Your task to perform on an android device: Find coffee shops on Maps Image 0: 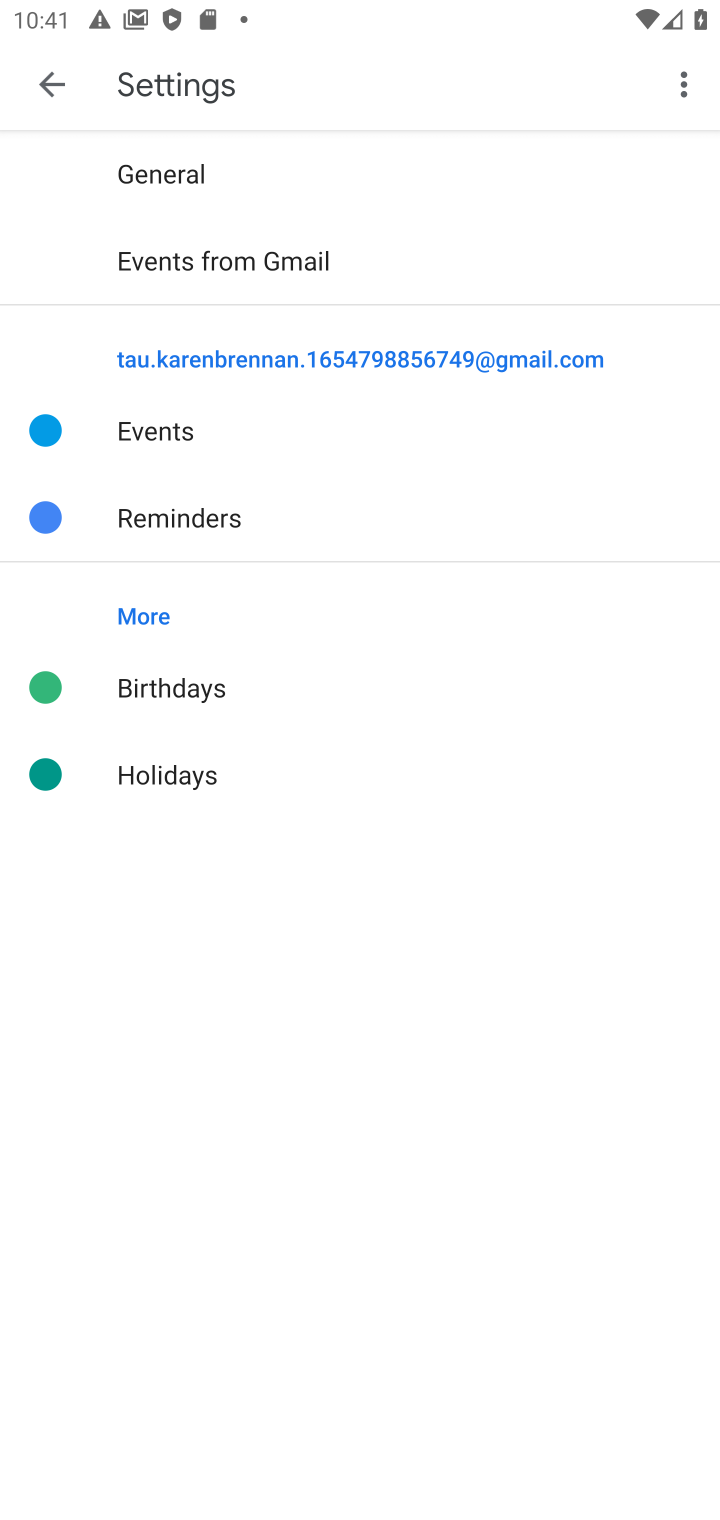
Step 0: press home button
Your task to perform on an android device: Find coffee shops on Maps Image 1: 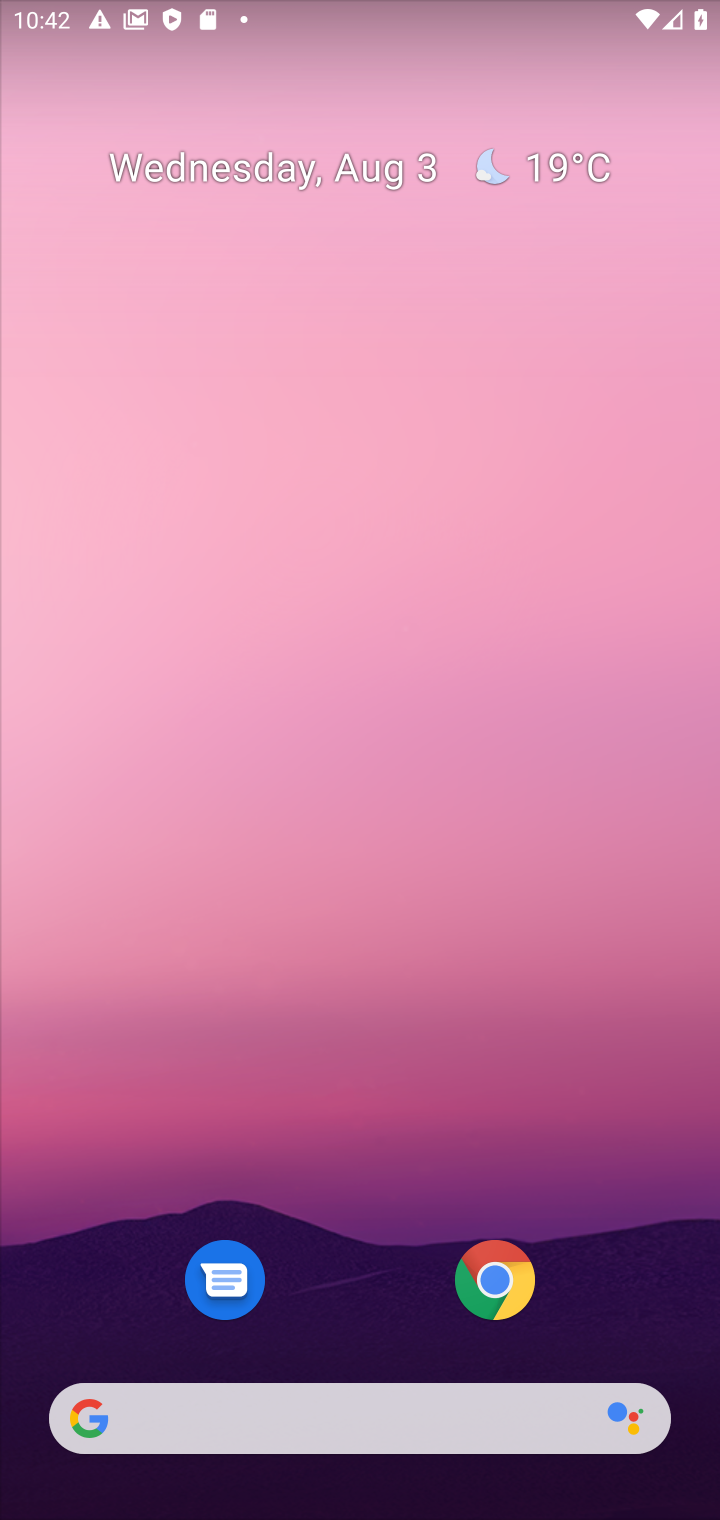
Step 1: drag from (341, 1150) to (313, 346)
Your task to perform on an android device: Find coffee shops on Maps Image 2: 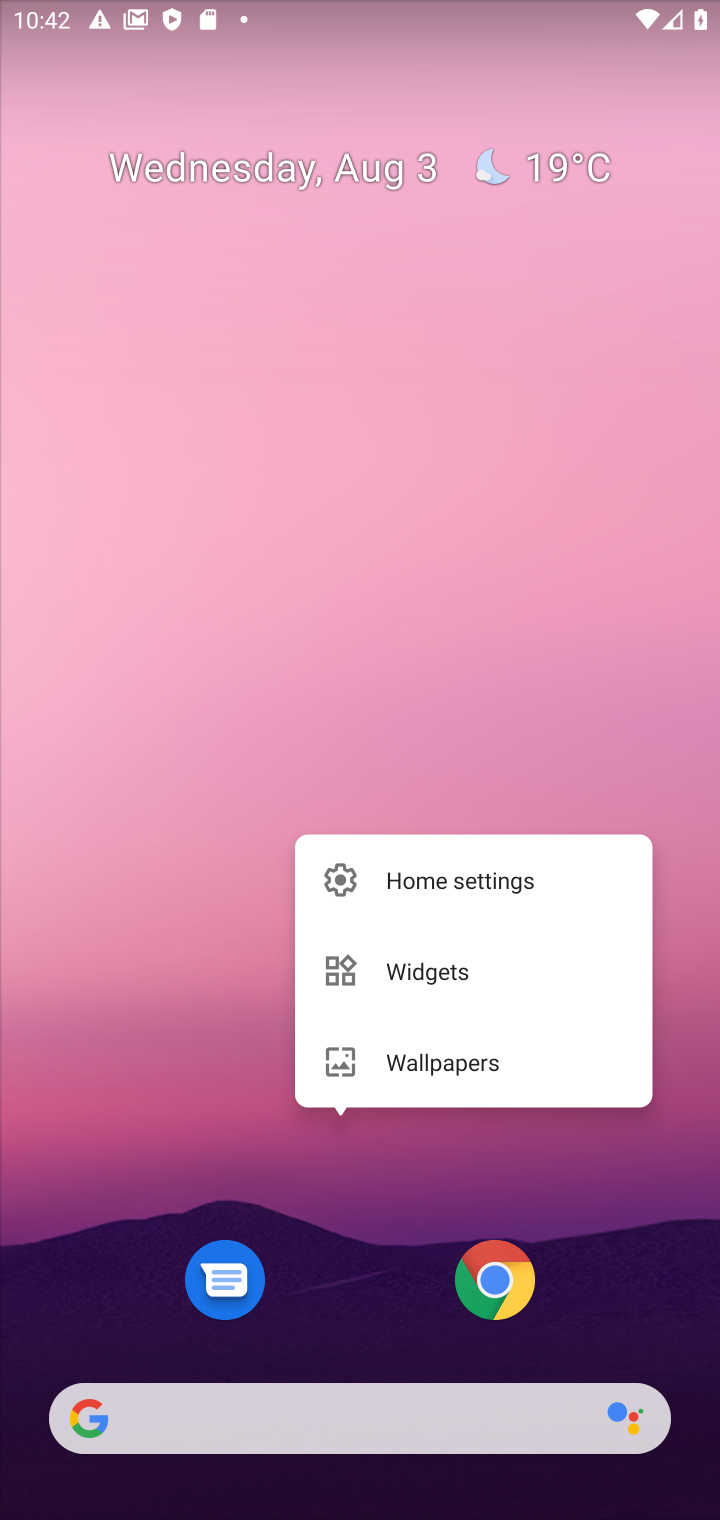
Step 2: click (328, 551)
Your task to perform on an android device: Find coffee shops on Maps Image 3: 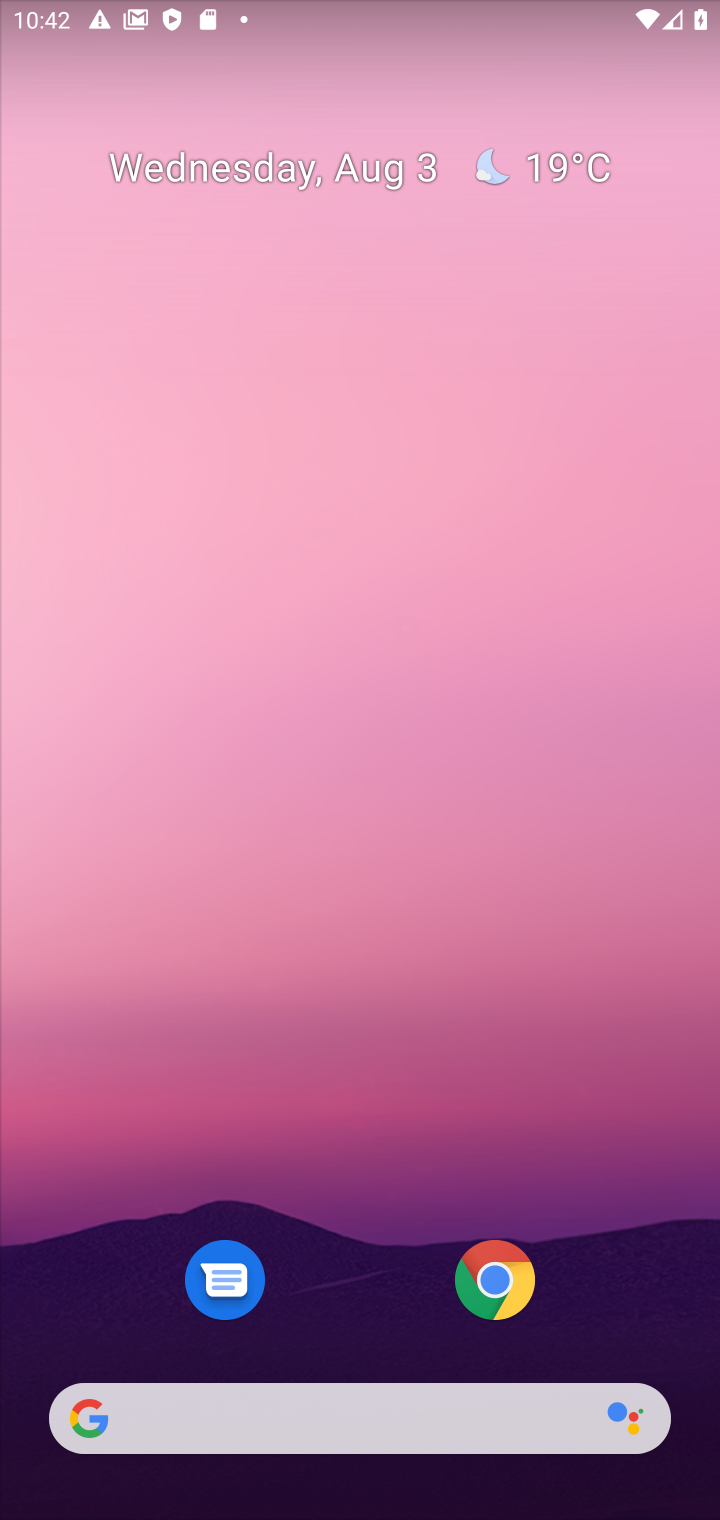
Step 3: drag from (358, 1084) to (366, 238)
Your task to perform on an android device: Find coffee shops on Maps Image 4: 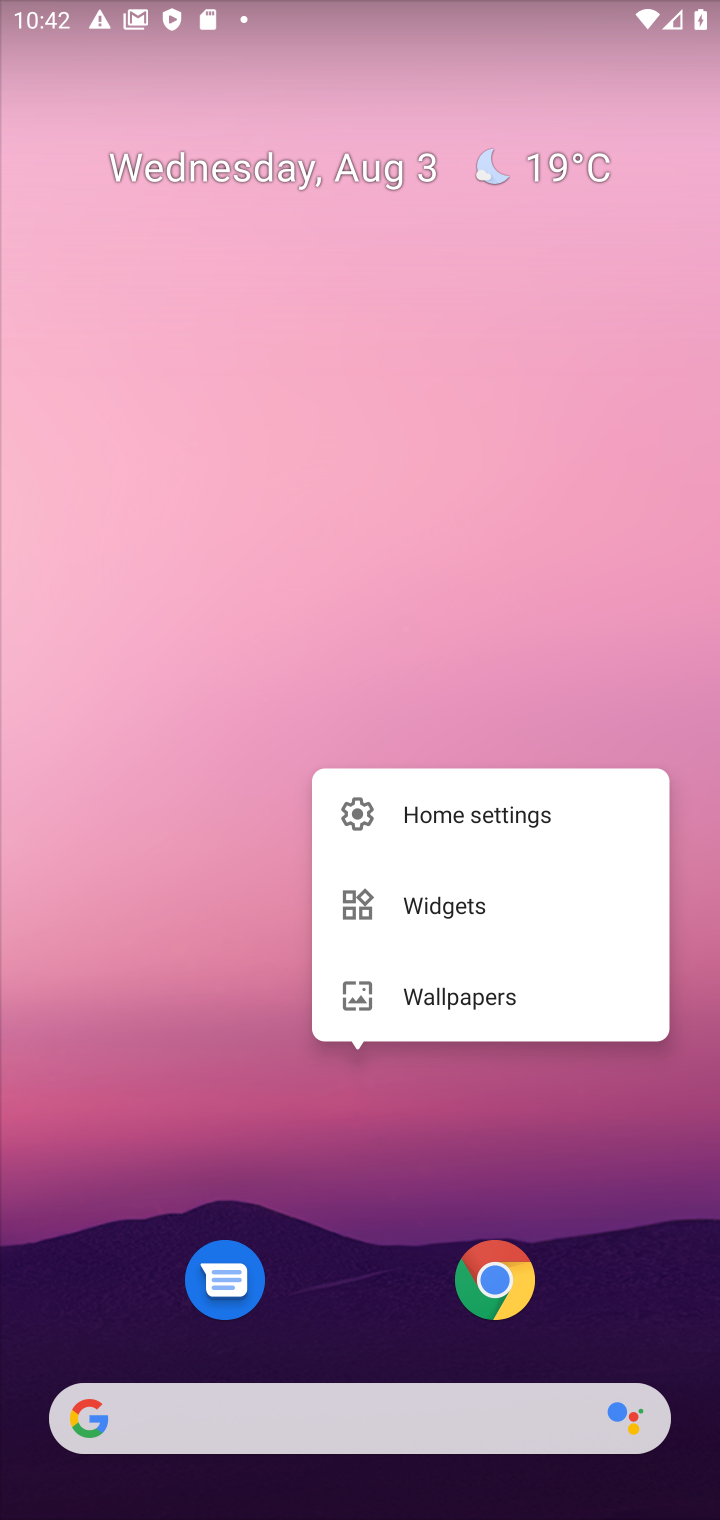
Step 4: click (317, 603)
Your task to perform on an android device: Find coffee shops on Maps Image 5: 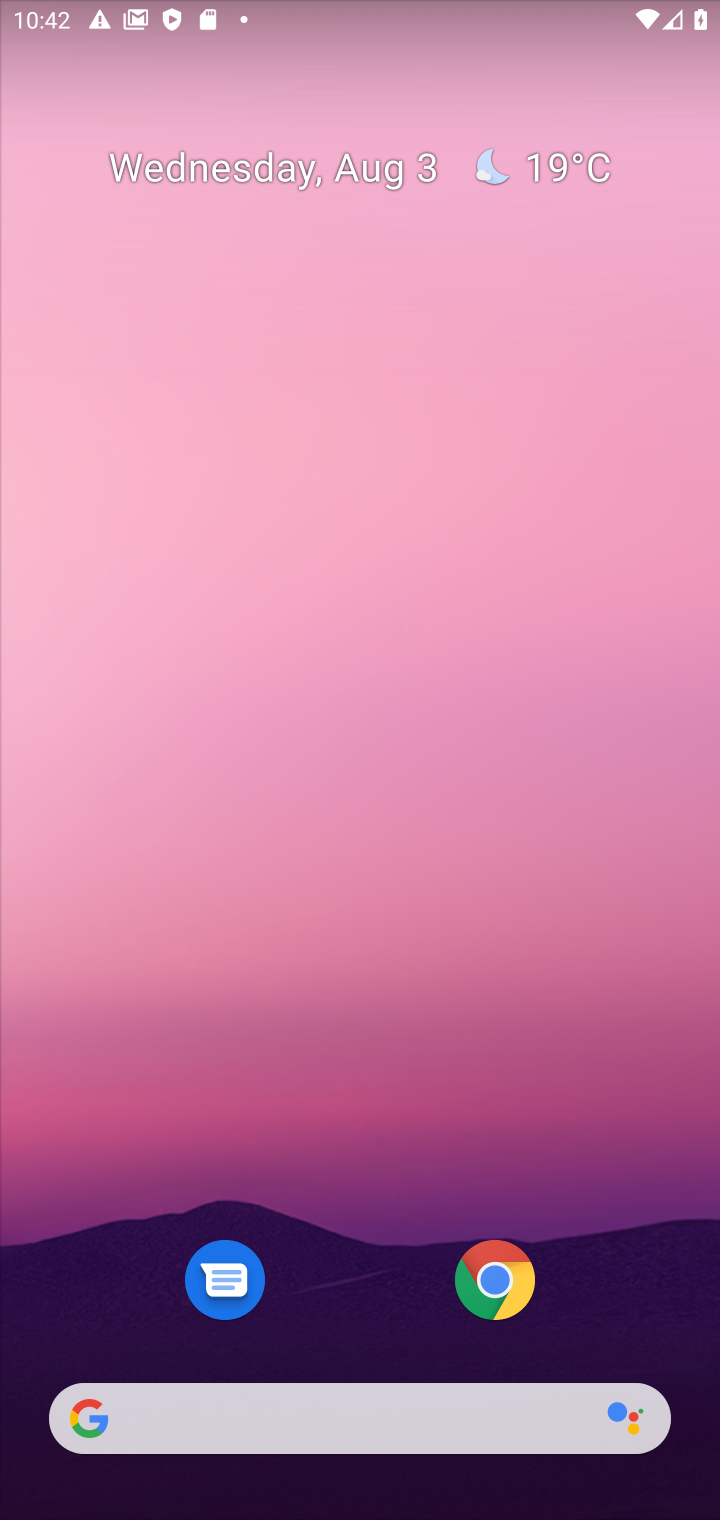
Step 5: drag from (346, 1040) to (297, 28)
Your task to perform on an android device: Find coffee shops on Maps Image 6: 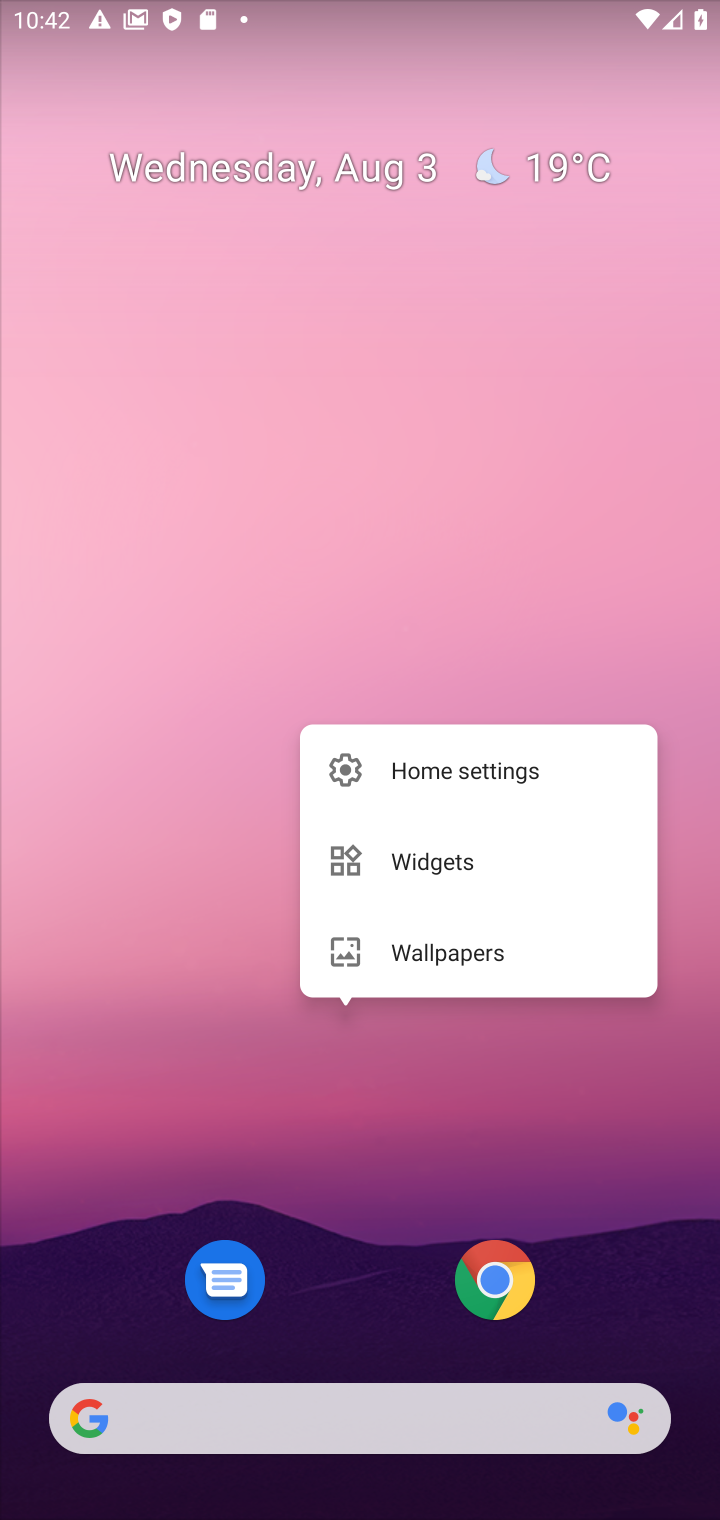
Step 6: click (123, 760)
Your task to perform on an android device: Find coffee shops on Maps Image 7: 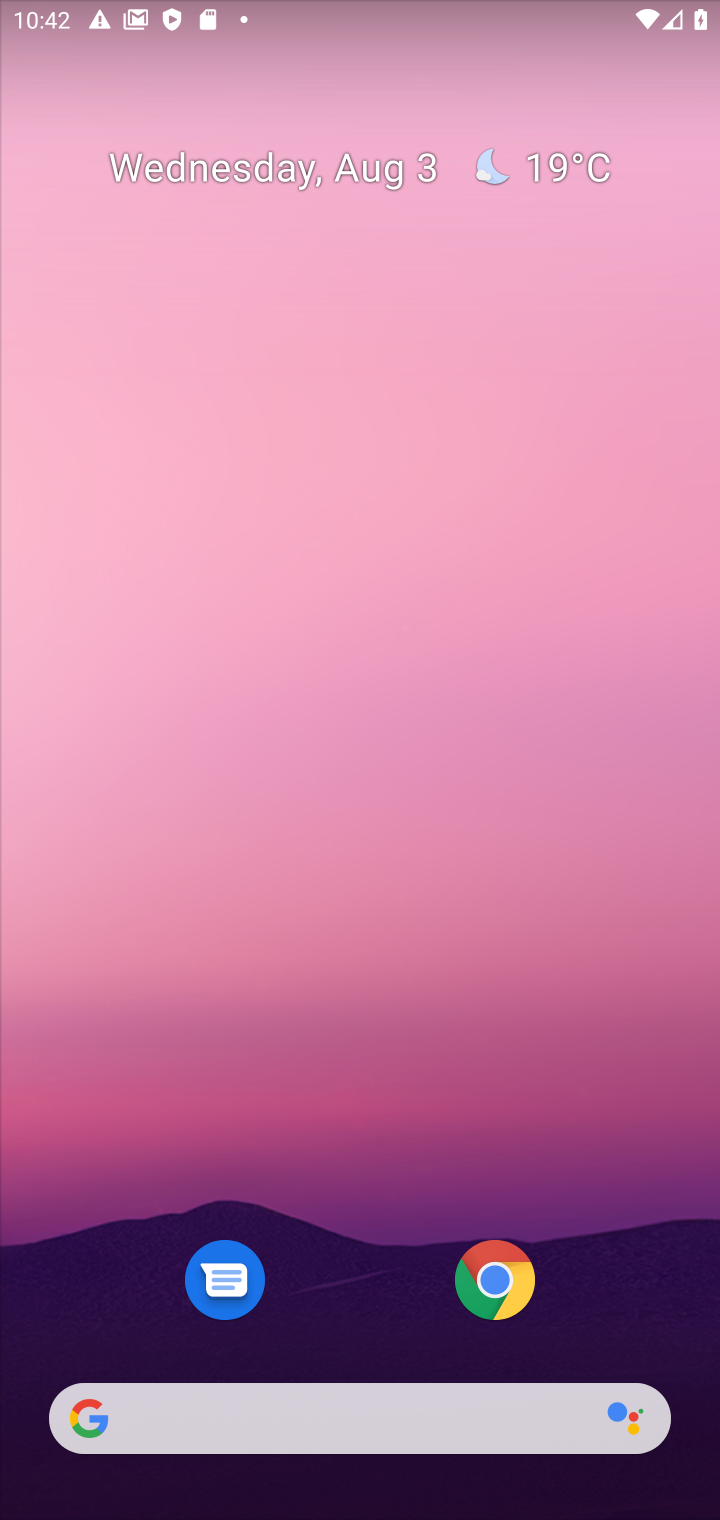
Step 7: drag from (377, 1103) to (600, 113)
Your task to perform on an android device: Find coffee shops on Maps Image 8: 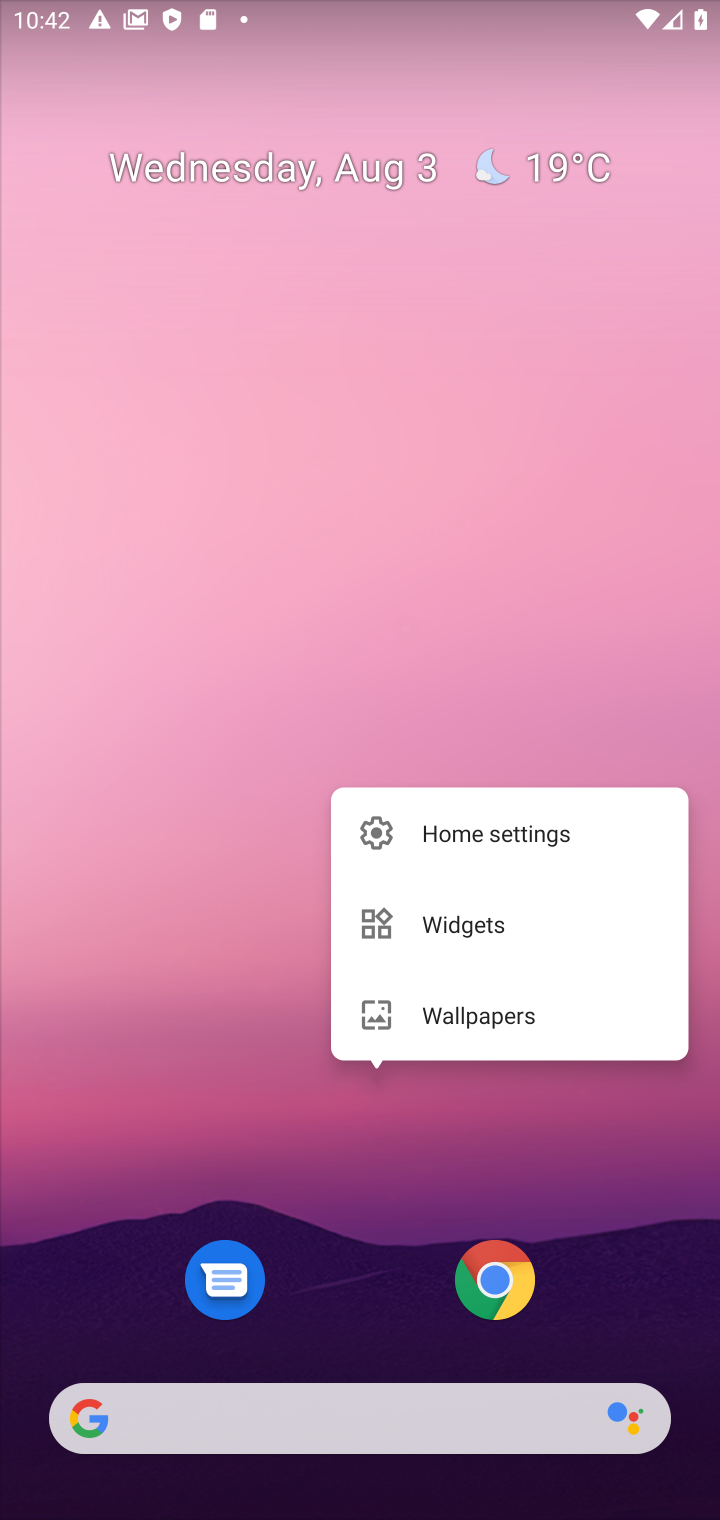
Step 8: click (474, 485)
Your task to perform on an android device: Find coffee shops on Maps Image 9: 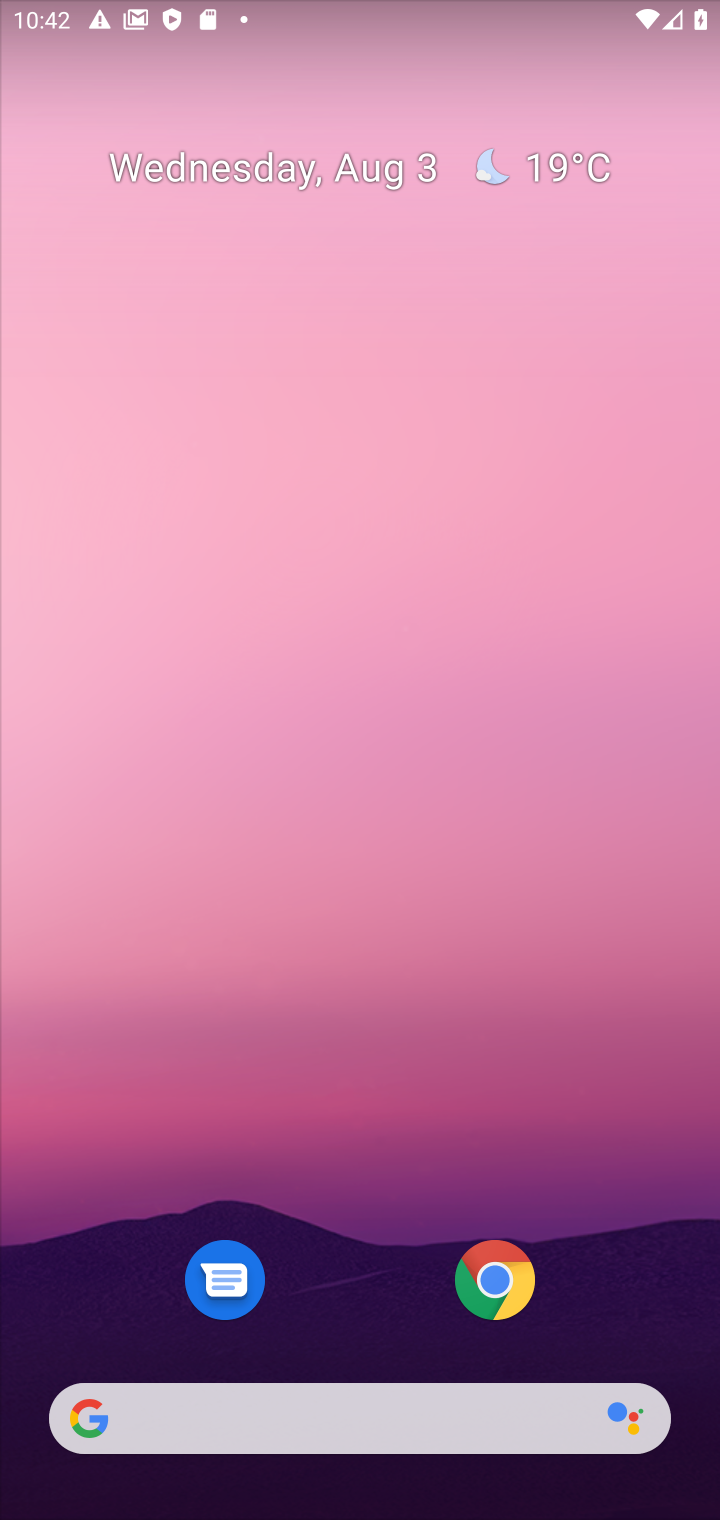
Step 9: drag from (380, 1172) to (533, 35)
Your task to perform on an android device: Find coffee shops on Maps Image 10: 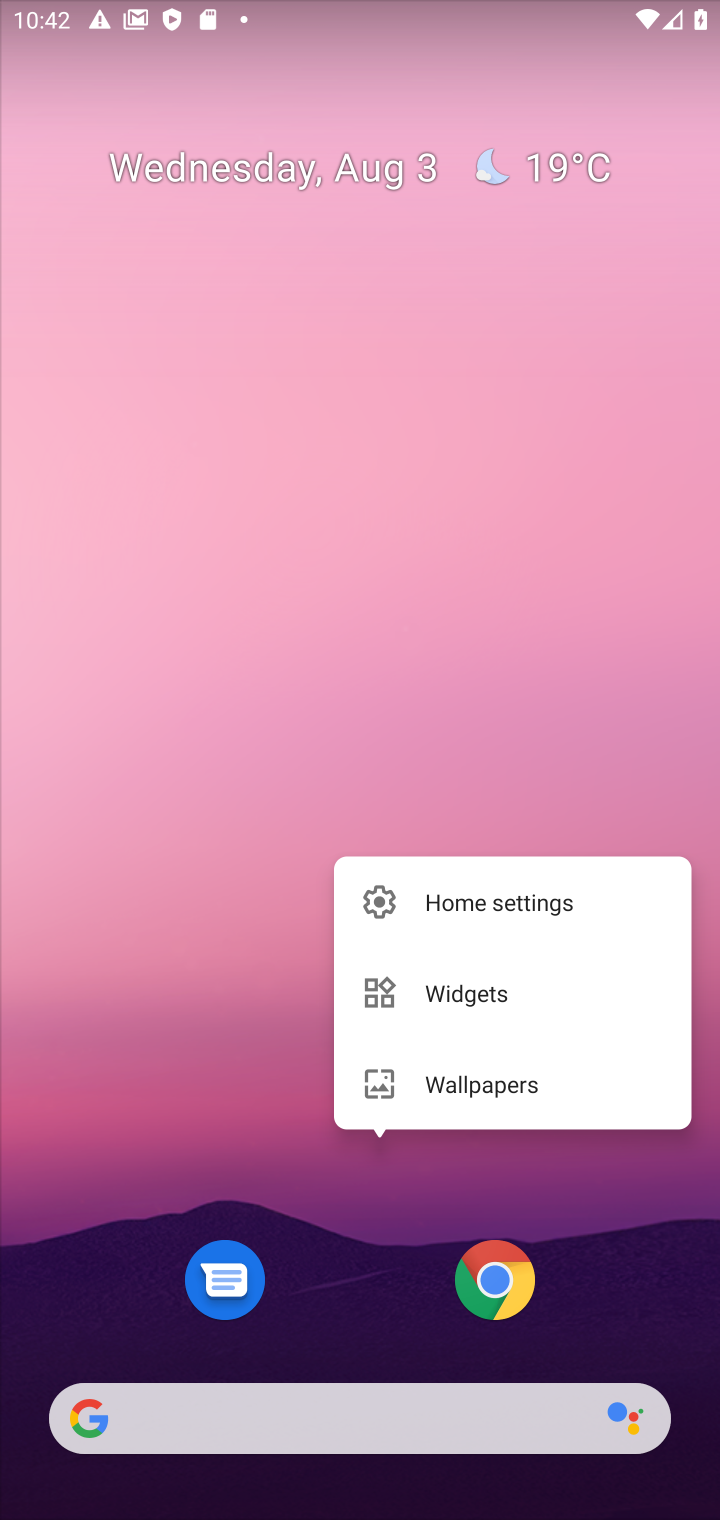
Step 10: click (261, 1013)
Your task to perform on an android device: Find coffee shops on Maps Image 11: 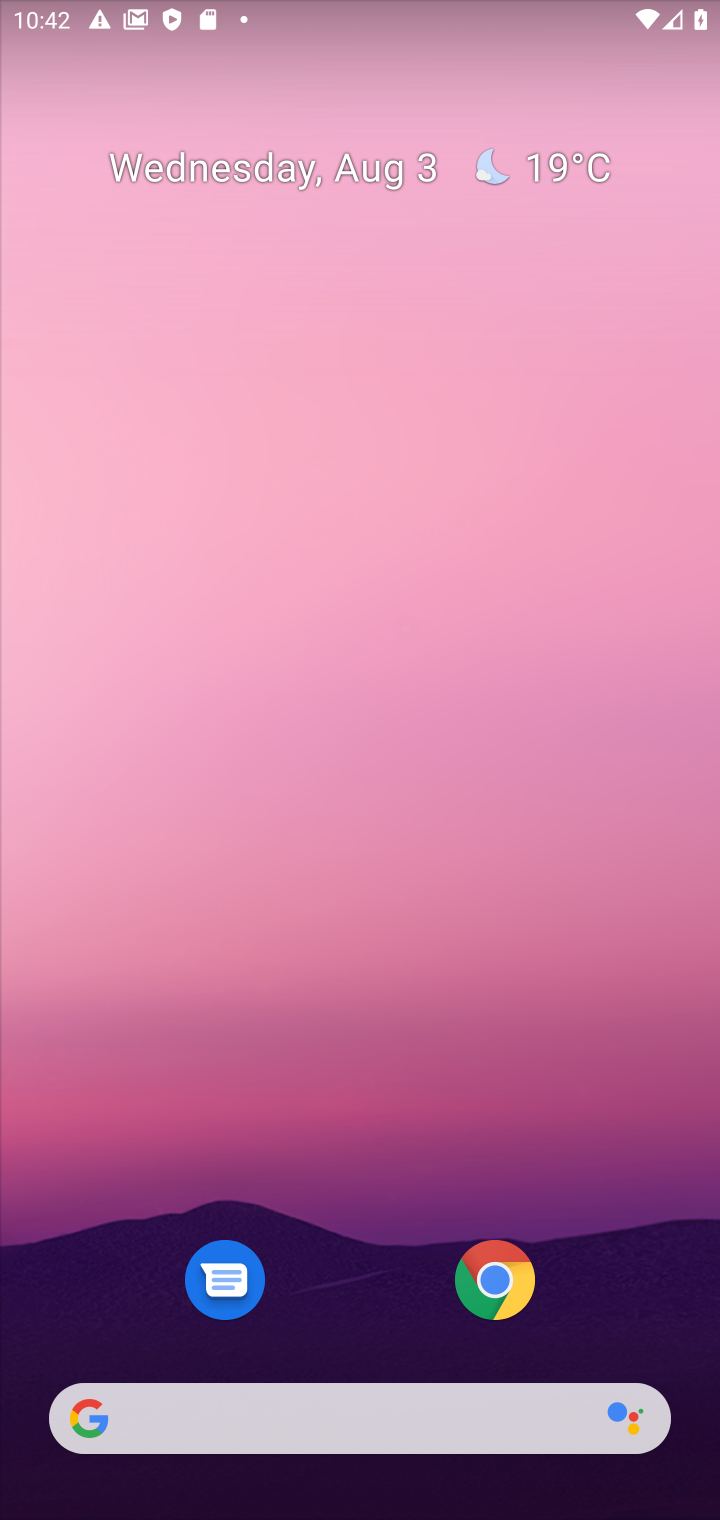
Step 11: drag from (353, 1180) to (378, 253)
Your task to perform on an android device: Find coffee shops on Maps Image 12: 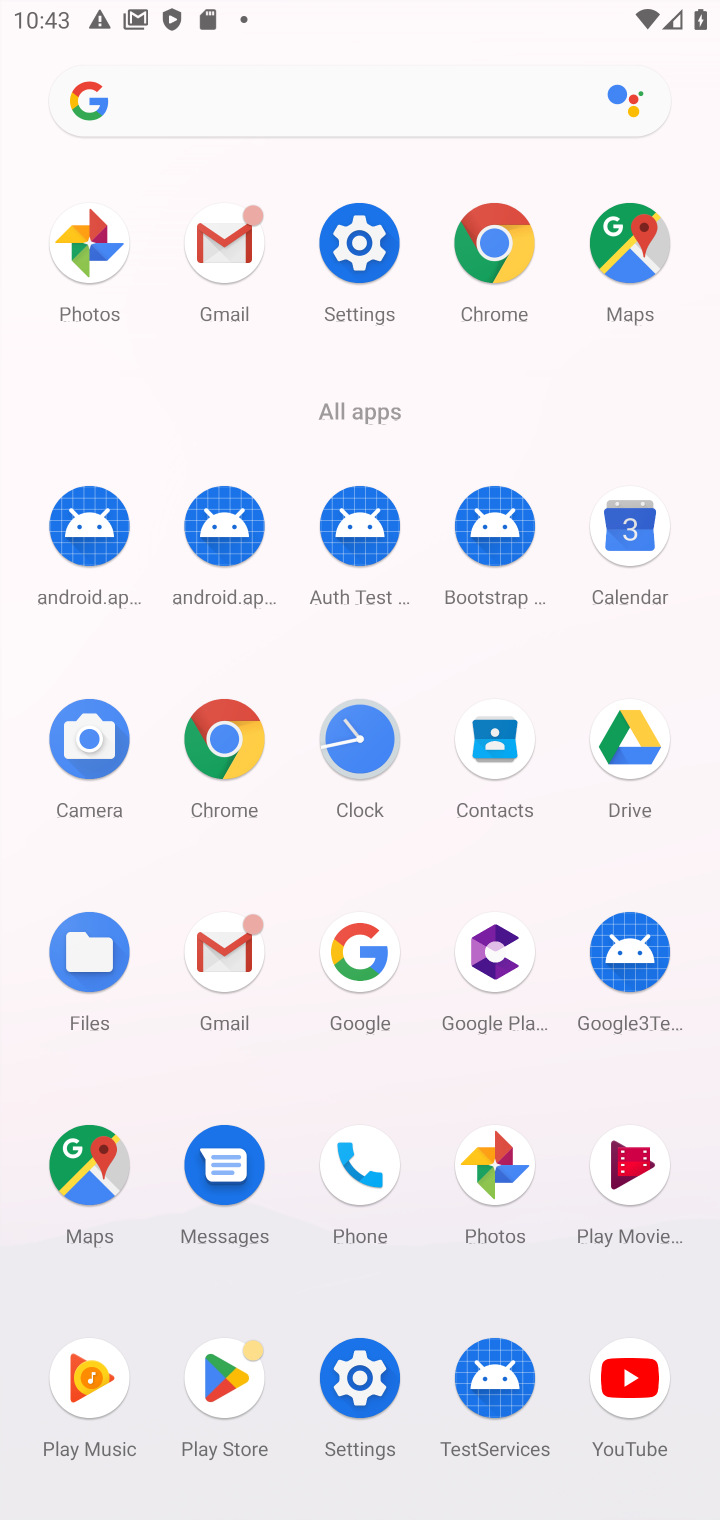
Step 12: click (630, 249)
Your task to perform on an android device: Find coffee shops on Maps Image 13: 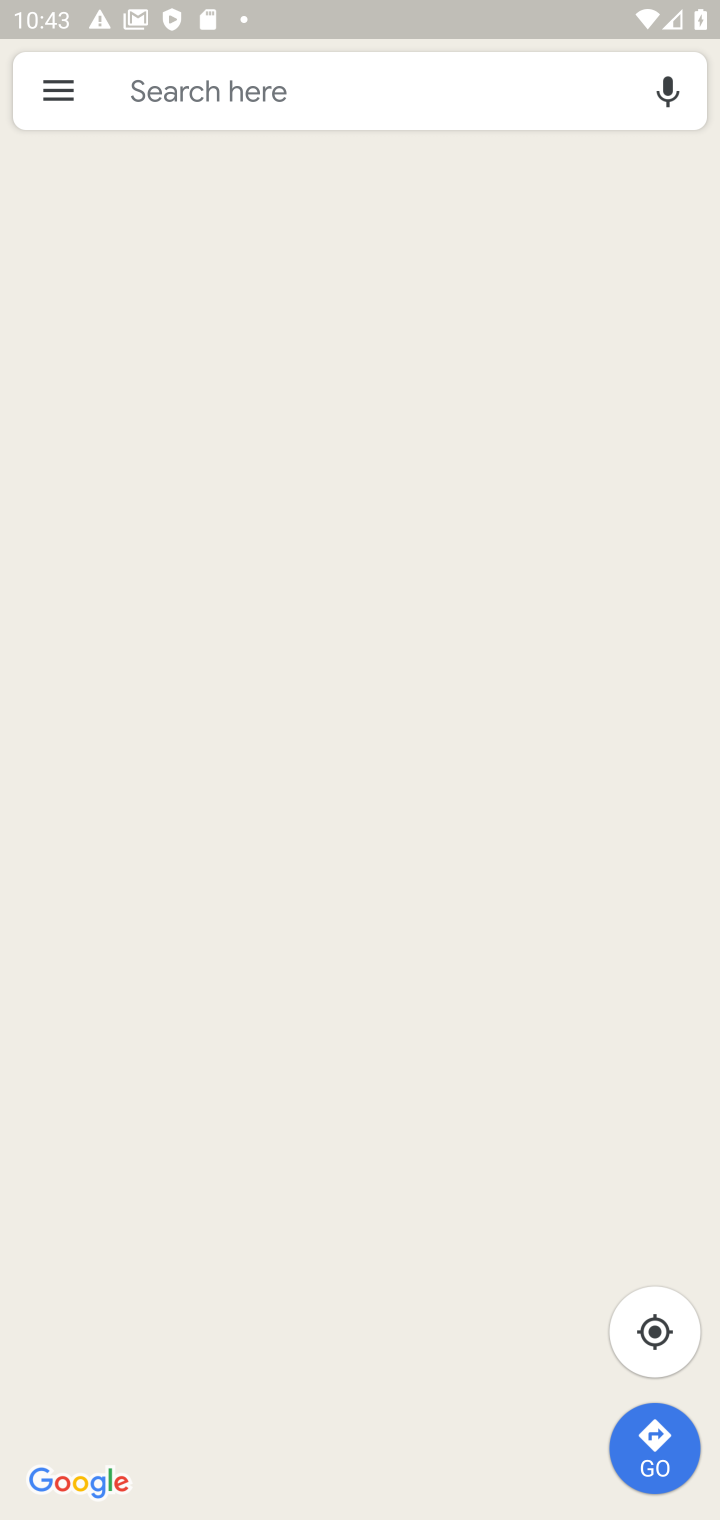
Step 13: task complete